Your task to perform on an android device: toggle pop-ups in chrome Image 0: 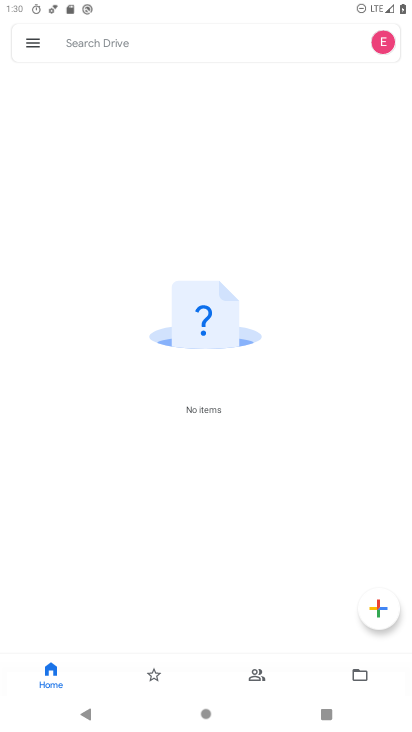
Step 0: press home button
Your task to perform on an android device: toggle pop-ups in chrome Image 1: 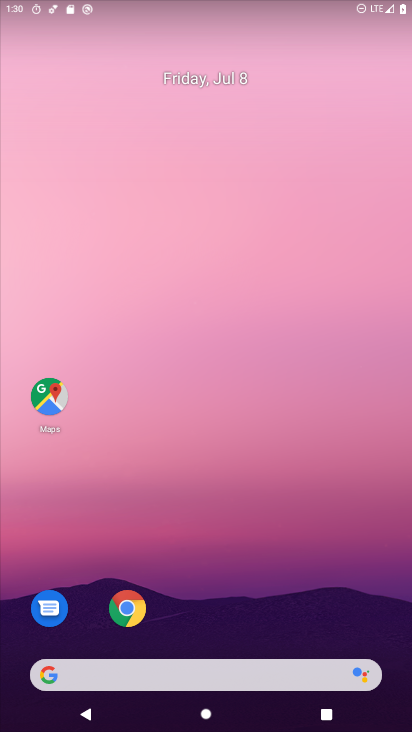
Step 1: click (125, 609)
Your task to perform on an android device: toggle pop-ups in chrome Image 2: 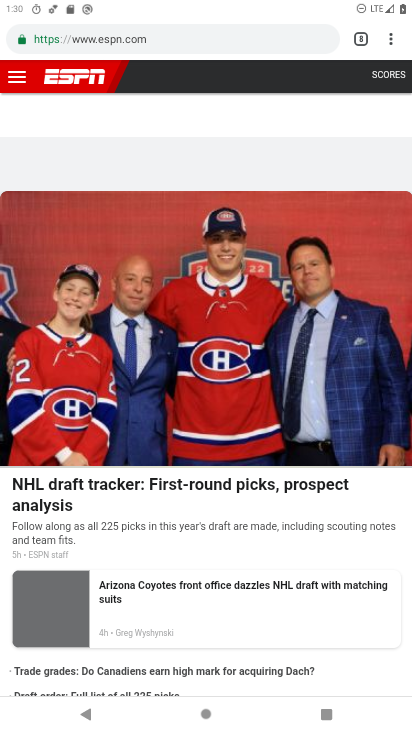
Step 2: click (391, 42)
Your task to perform on an android device: toggle pop-ups in chrome Image 3: 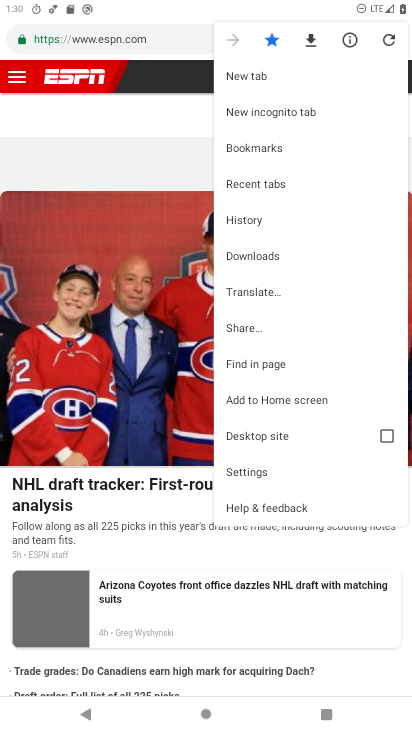
Step 3: click (254, 468)
Your task to perform on an android device: toggle pop-ups in chrome Image 4: 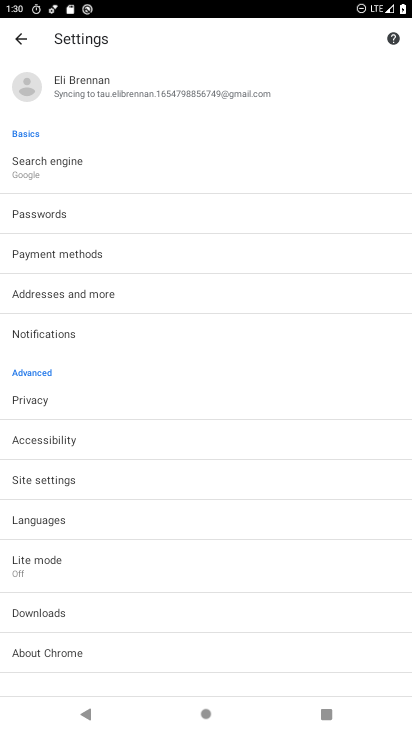
Step 4: click (59, 477)
Your task to perform on an android device: toggle pop-ups in chrome Image 5: 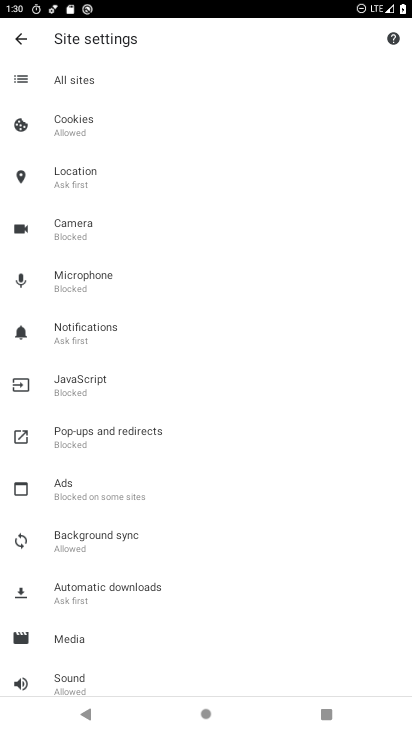
Step 5: click (69, 435)
Your task to perform on an android device: toggle pop-ups in chrome Image 6: 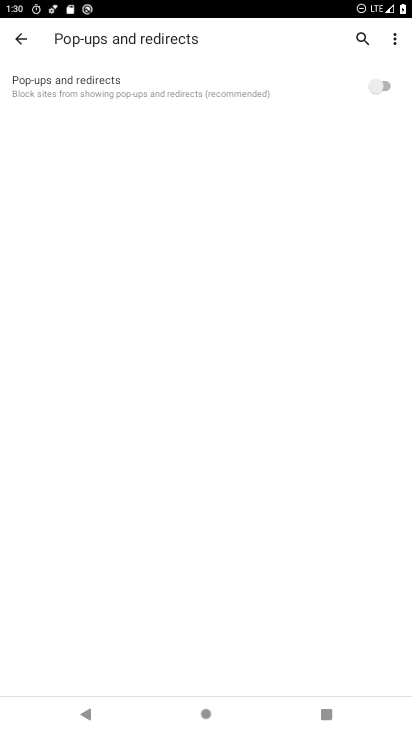
Step 6: click (385, 85)
Your task to perform on an android device: toggle pop-ups in chrome Image 7: 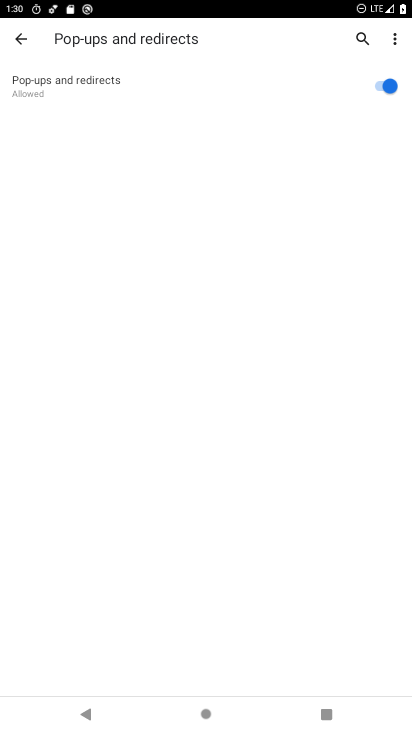
Step 7: task complete